Your task to perform on an android device: change notification settings in the gmail app Image 0: 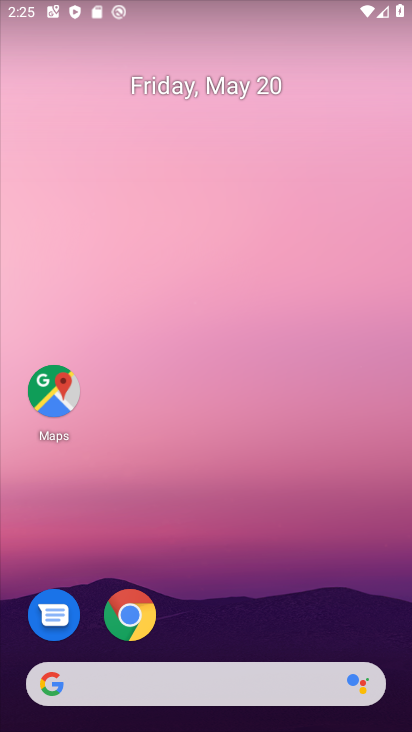
Step 0: drag from (239, 604) to (247, 177)
Your task to perform on an android device: change notification settings in the gmail app Image 1: 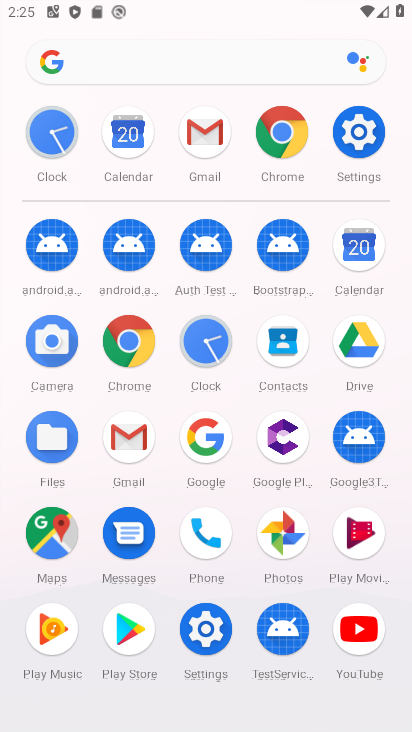
Step 1: click (133, 436)
Your task to perform on an android device: change notification settings in the gmail app Image 2: 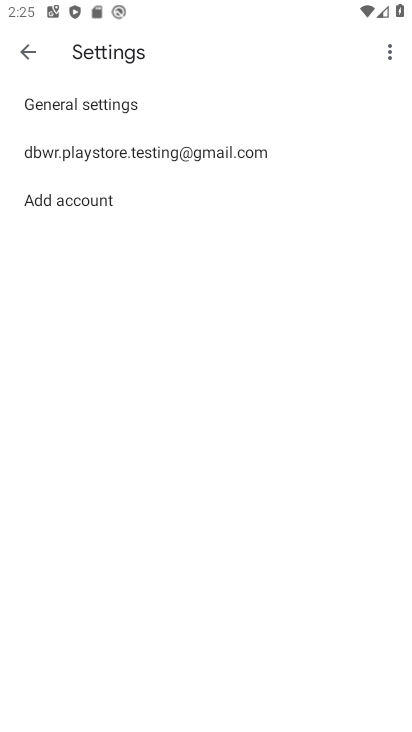
Step 2: click (108, 143)
Your task to perform on an android device: change notification settings in the gmail app Image 3: 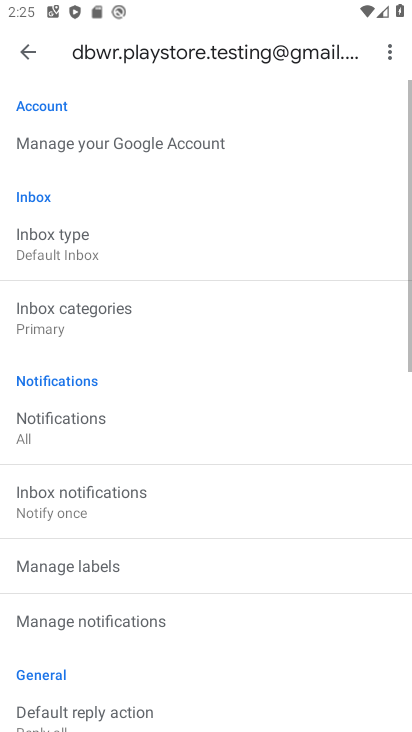
Step 3: click (99, 423)
Your task to perform on an android device: change notification settings in the gmail app Image 4: 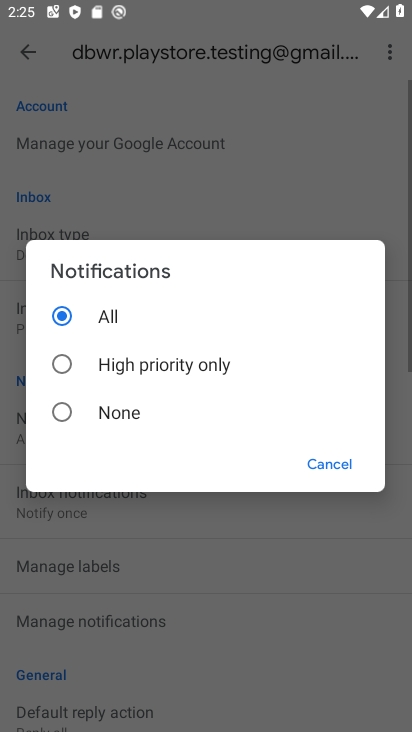
Step 4: click (107, 358)
Your task to perform on an android device: change notification settings in the gmail app Image 5: 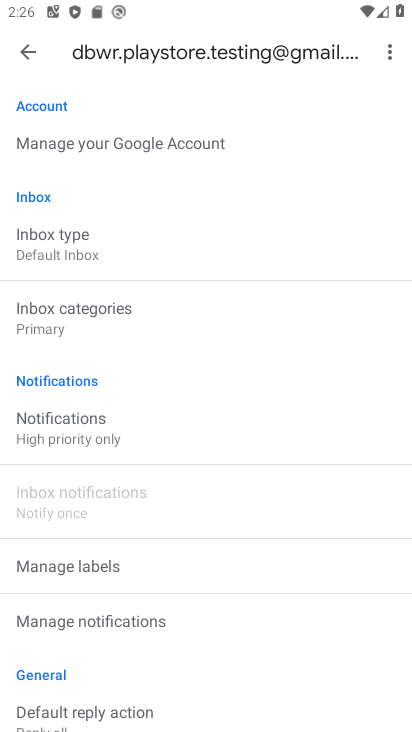
Step 5: task complete